Your task to perform on an android device: Open battery settings Image 0: 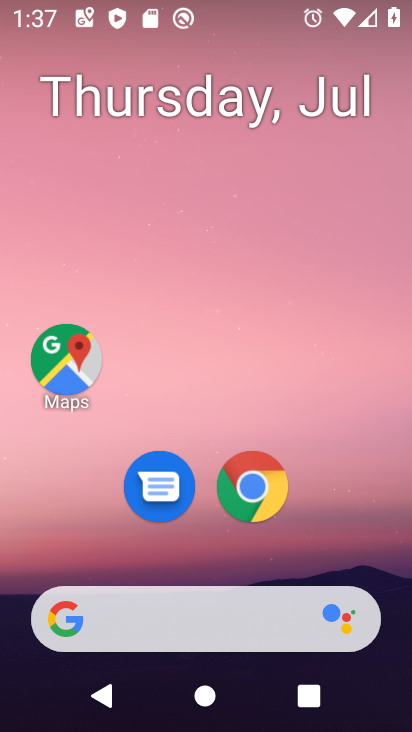
Step 0: drag from (208, 566) to (214, 3)
Your task to perform on an android device: Open battery settings Image 1: 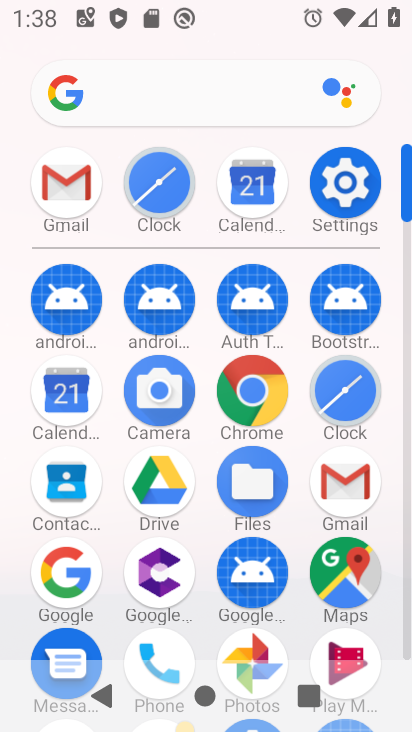
Step 1: click (351, 184)
Your task to perform on an android device: Open battery settings Image 2: 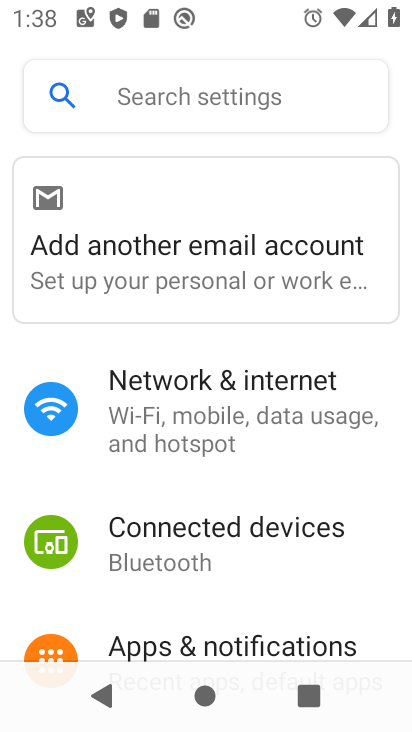
Step 2: drag from (196, 517) to (248, 22)
Your task to perform on an android device: Open battery settings Image 3: 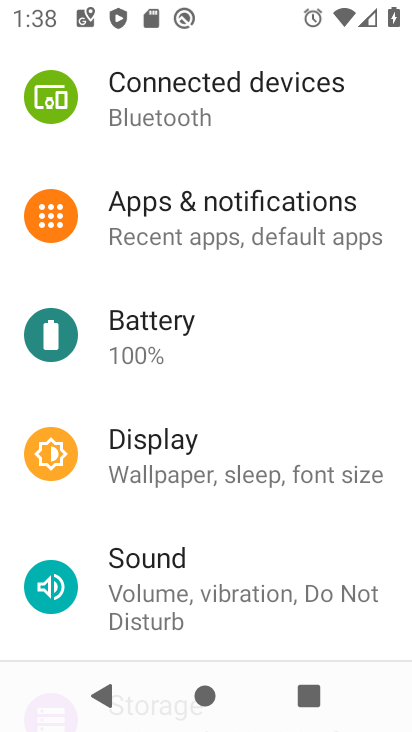
Step 3: click (152, 349)
Your task to perform on an android device: Open battery settings Image 4: 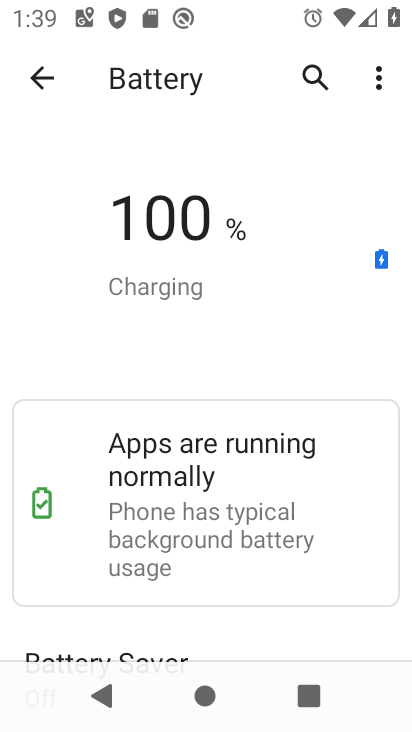
Step 4: task complete